Your task to perform on an android device: turn off smart reply in the gmail app Image 0: 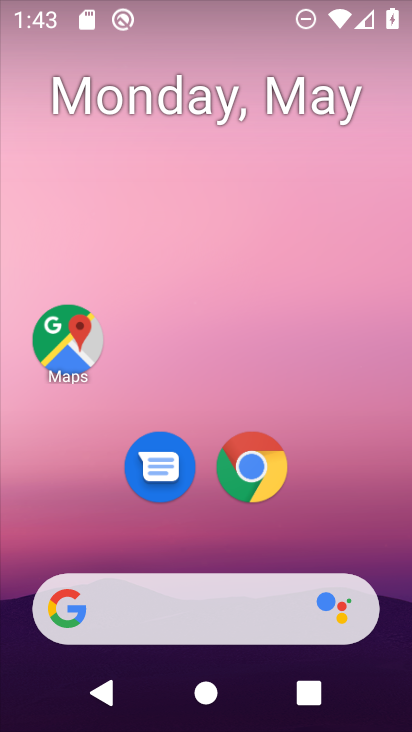
Step 0: click (287, 114)
Your task to perform on an android device: turn off smart reply in the gmail app Image 1: 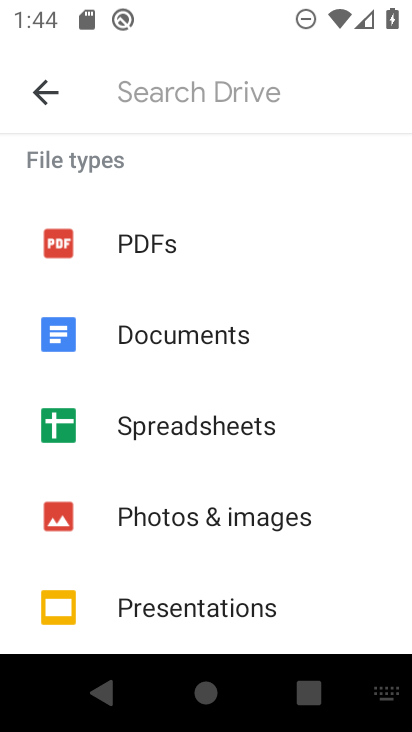
Step 1: press home button
Your task to perform on an android device: turn off smart reply in the gmail app Image 2: 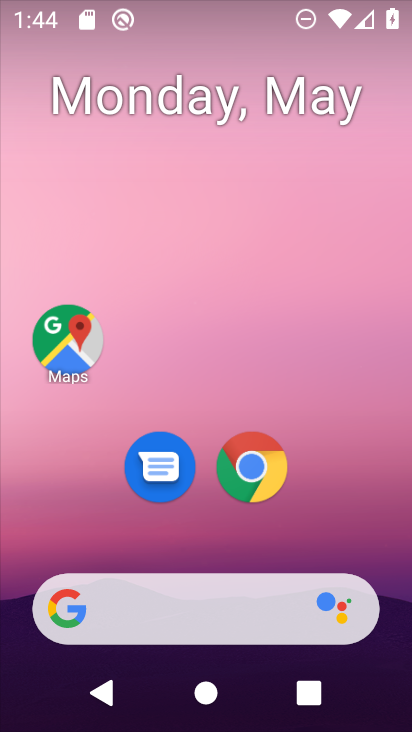
Step 2: drag from (93, 534) to (243, 52)
Your task to perform on an android device: turn off smart reply in the gmail app Image 3: 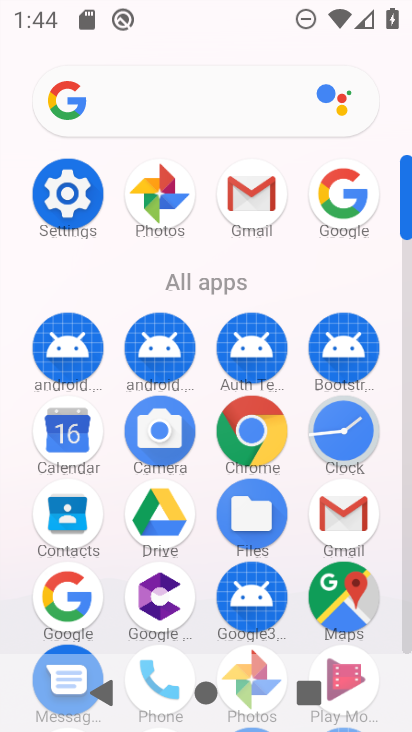
Step 3: click (352, 527)
Your task to perform on an android device: turn off smart reply in the gmail app Image 4: 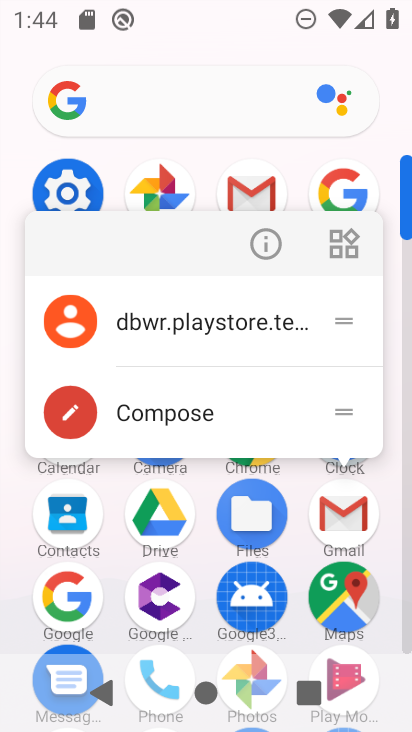
Step 4: click (348, 514)
Your task to perform on an android device: turn off smart reply in the gmail app Image 5: 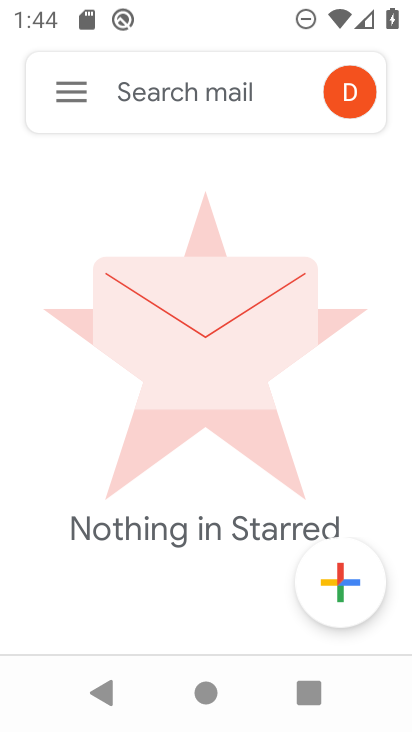
Step 5: click (65, 97)
Your task to perform on an android device: turn off smart reply in the gmail app Image 6: 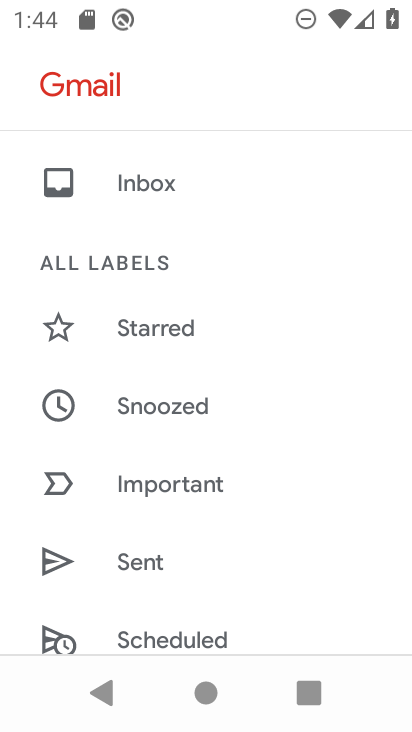
Step 6: drag from (120, 585) to (242, 291)
Your task to perform on an android device: turn off smart reply in the gmail app Image 7: 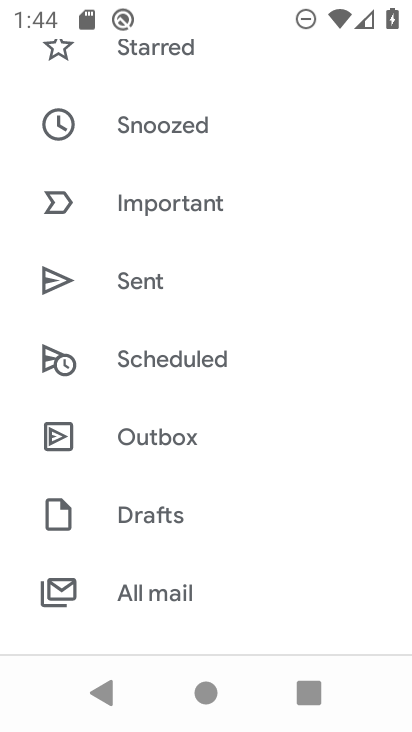
Step 7: drag from (138, 589) to (257, 121)
Your task to perform on an android device: turn off smart reply in the gmail app Image 8: 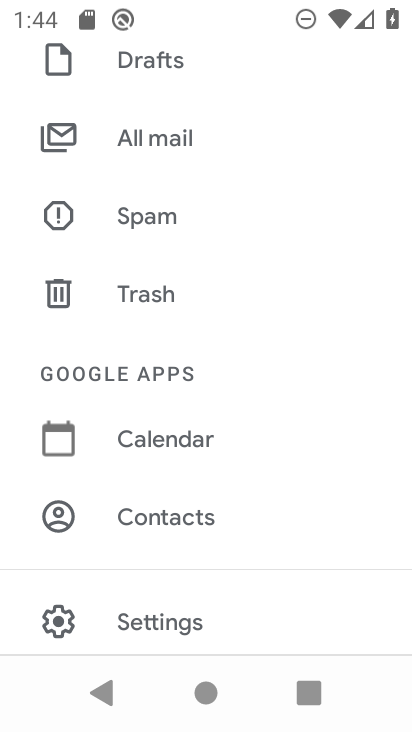
Step 8: click (167, 626)
Your task to perform on an android device: turn off smart reply in the gmail app Image 9: 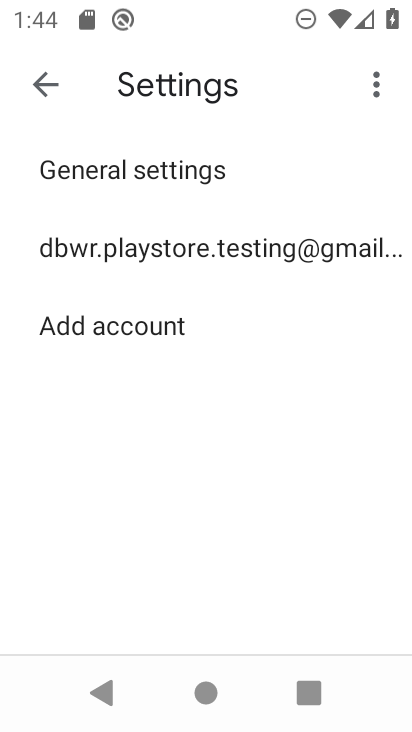
Step 9: click (226, 263)
Your task to perform on an android device: turn off smart reply in the gmail app Image 10: 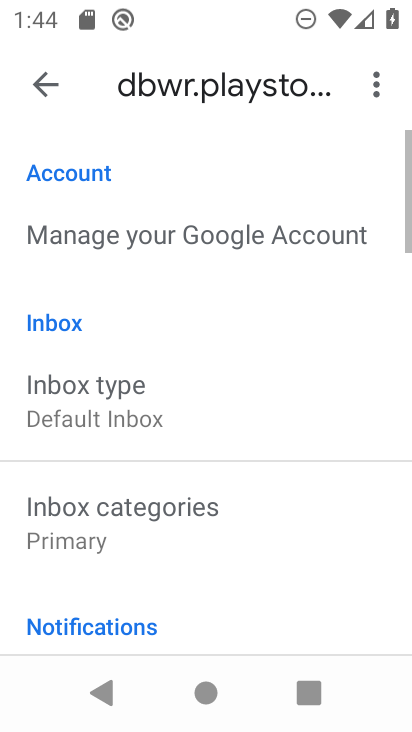
Step 10: drag from (107, 565) to (219, 278)
Your task to perform on an android device: turn off smart reply in the gmail app Image 11: 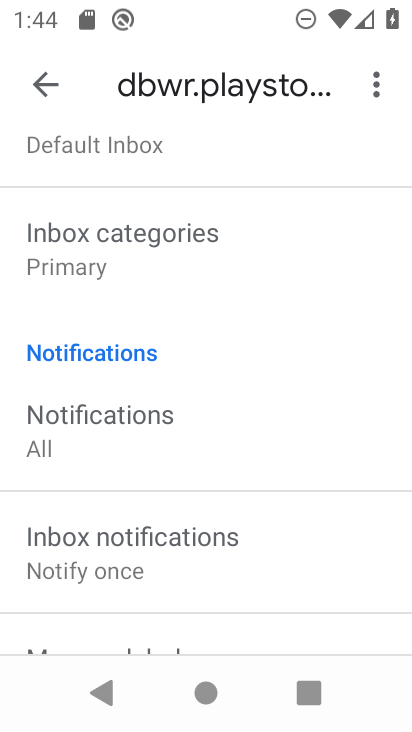
Step 11: drag from (99, 582) to (148, 390)
Your task to perform on an android device: turn off smart reply in the gmail app Image 12: 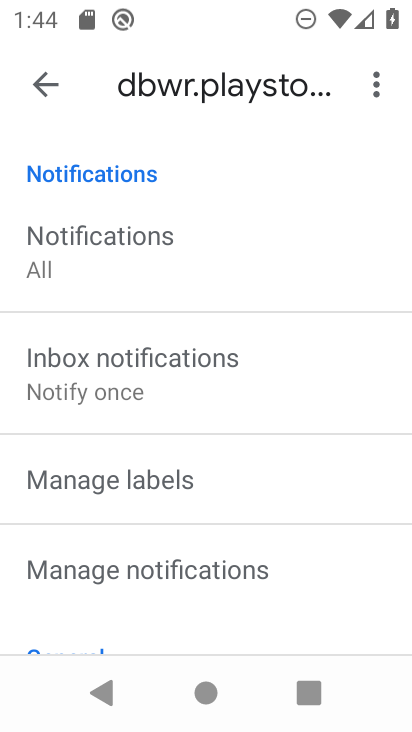
Step 12: drag from (79, 580) to (225, 213)
Your task to perform on an android device: turn off smart reply in the gmail app Image 13: 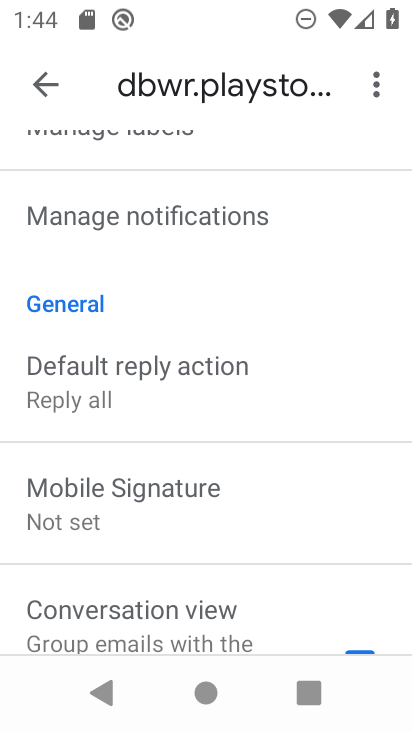
Step 13: drag from (68, 616) to (212, 202)
Your task to perform on an android device: turn off smart reply in the gmail app Image 14: 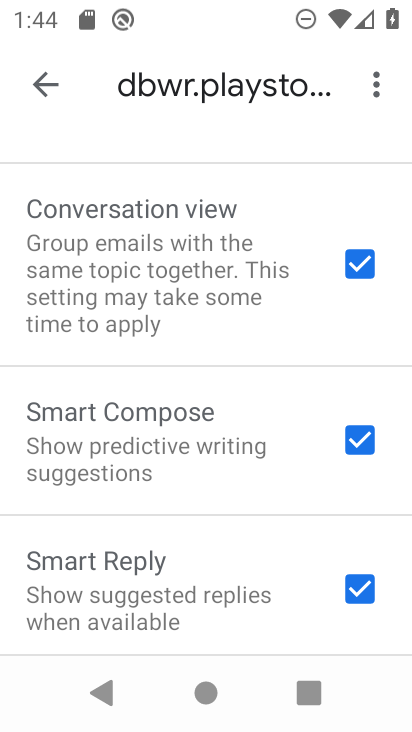
Step 14: drag from (163, 568) to (225, 297)
Your task to perform on an android device: turn off smart reply in the gmail app Image 15: 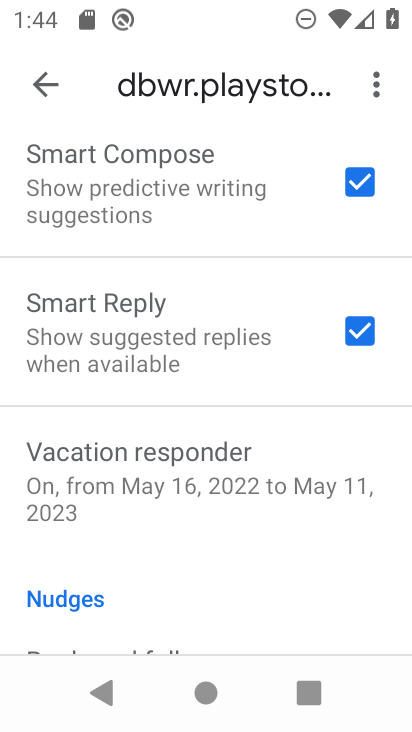
Step 15: click (366, 314)
Your task to perform on an android device: turn off smart reply in the gmail app Image 16: 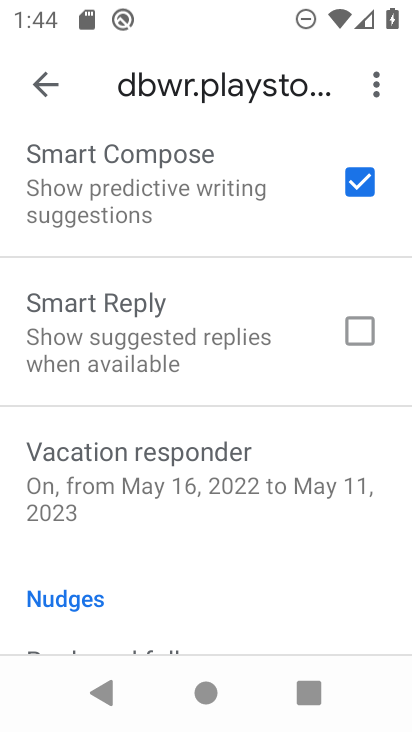
Step 16: task complete